Your task to perform on an android device: Open eBay Image 0: 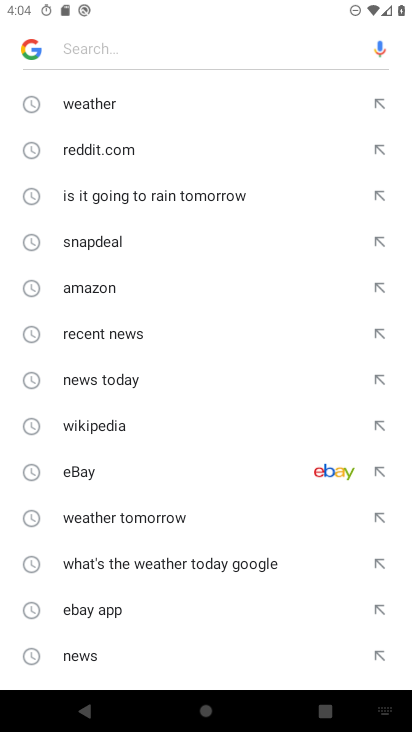
Step 0: press home button
Your task to perform on an android device: Open eBay Image 1: 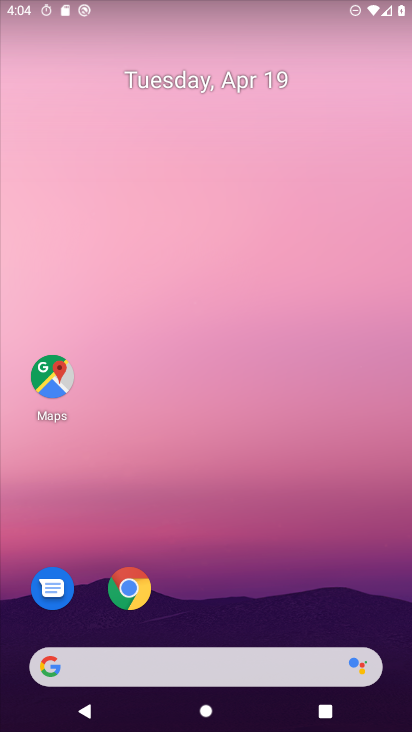
Step 1: click (137, 589)
Your task to perform on an android device: Open eBay Image 2: 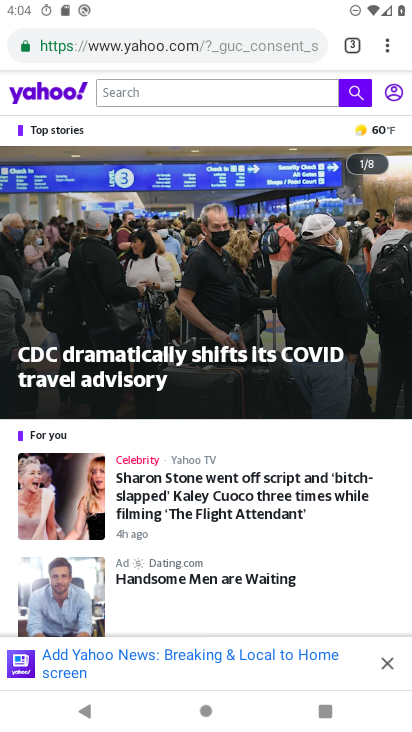
Step 2: click (355, 39)
Your task to perform on an android device: Open eBay Image 3: 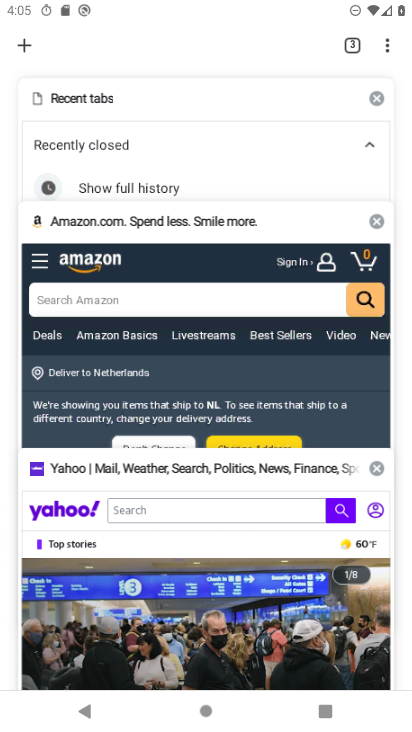
Step 3: click (25, 41)
Your task to perform on an android device: Open eBay Image 4: 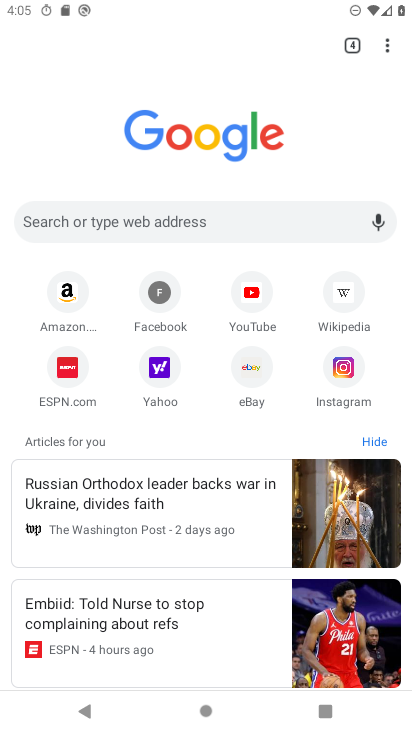
Step 4: click (248, 381)
Your task to perform on an android device: Open eBay Image 5: 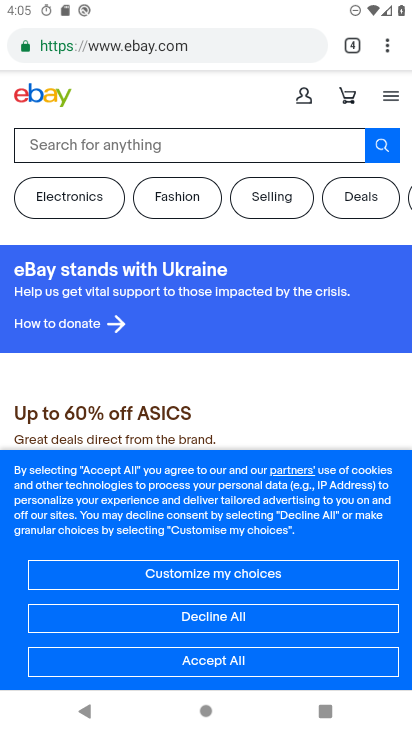
Step 5: task complete